Your task to perform on an android device: Go to eBay Image 0: 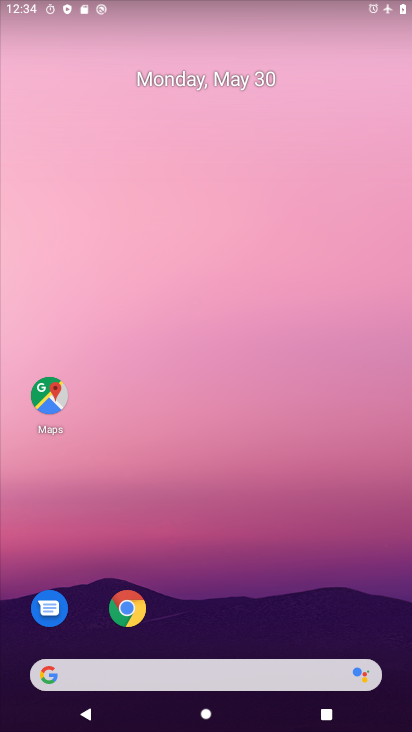
Step 0: drag from (228, 648) to (275, 21)
Your task to perform on an android device: Go to eBay Image 1: 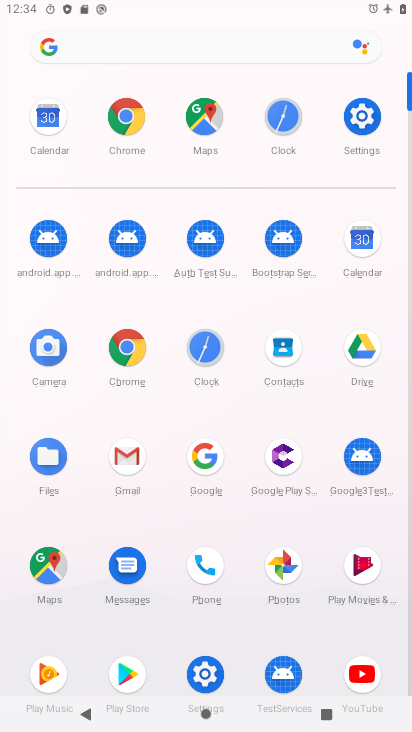
Step 1: click (125, 355)
Your task to perform on an android device: Go to eBay Image 2: 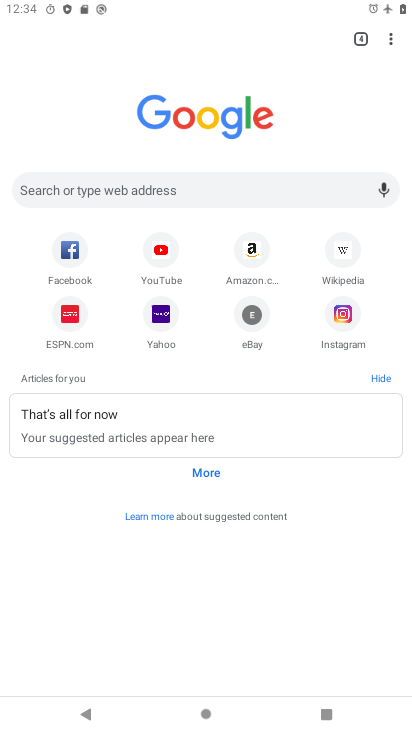
Step 2: click (234, 334)
Your task to perform on an android device: Go to eBay Image 3: 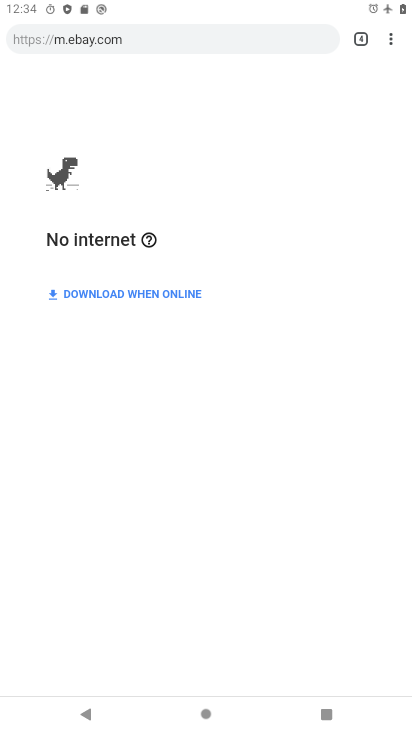
Step 3: task complete